Your task to perform on an android device: Go to CNN.com Image 0: 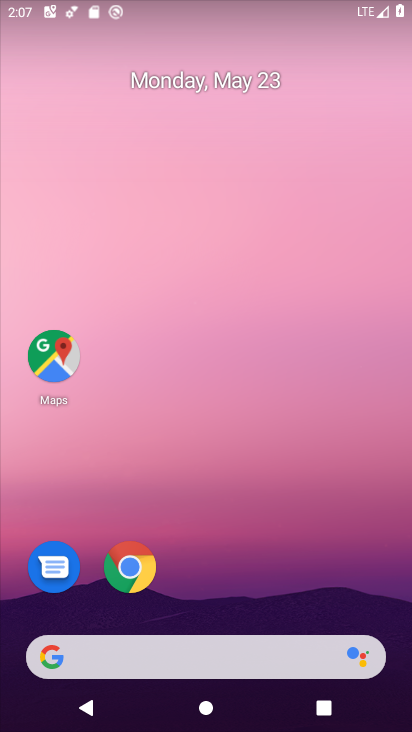
Step 0: drag from (233, 541) to (254, 194)
Your task to perform on an android device: Go to CNN.com Image 1: 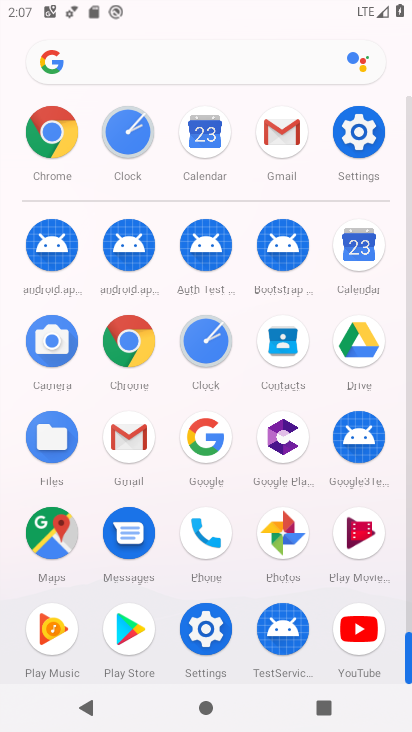
Step 1: click (363, 145)
Your task to perform on an android device: Go to CNN.com Image 2: 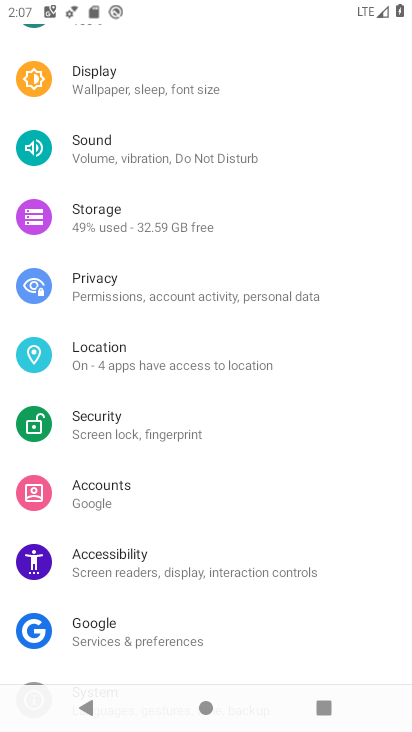
Step 2: press home button
Your task to perform on an android device: Go to CNN.com Image 3: 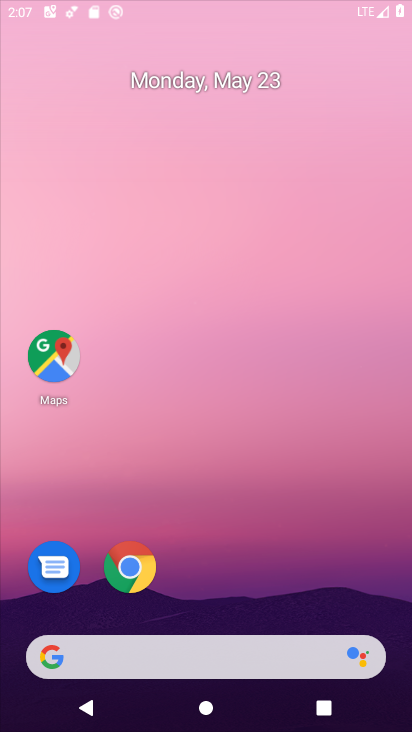
Step 3: drag from (277, 530) to (329, 181)
Your task to perform on an android device: Go to CNN.com Image 4: 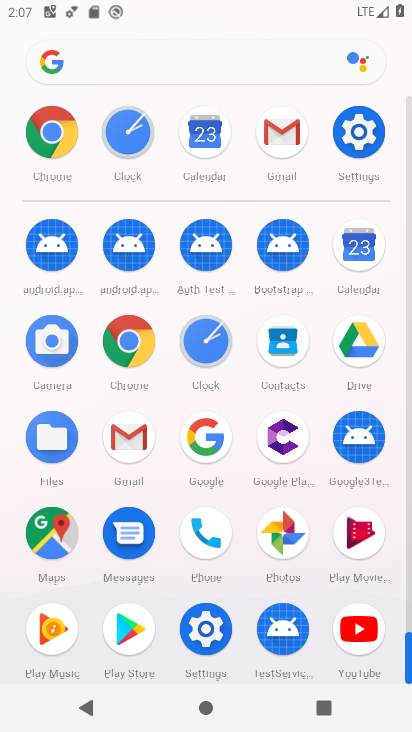
Step 4: click (151, 365)
Your task to perform on an android device: Go to CNN.com Image 5: 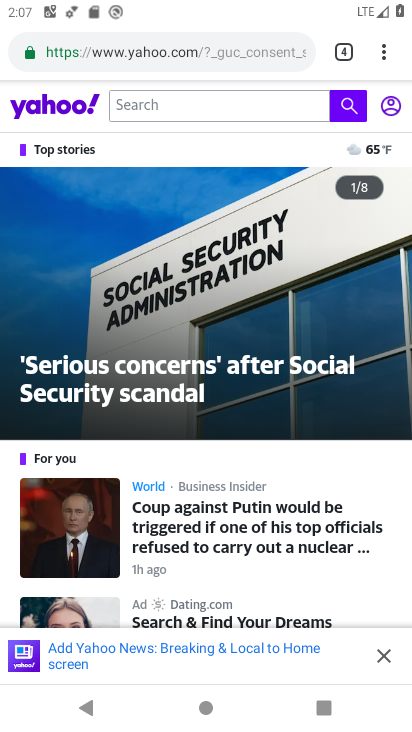
Step 5: click (349, 57)
Your task to perform on an android device: Go to CNN.com Image 6: 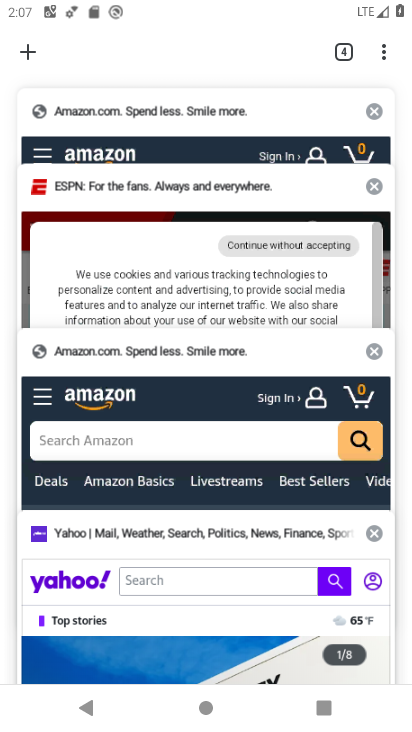
Step 6: click (31, 57)
Your task to perform on an android device: Go to CNN.com Image 7: 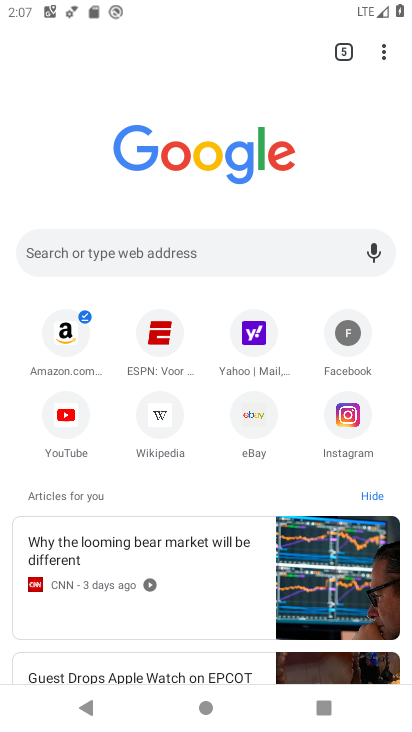
Step 7: click (178, 246)
Your task to perform on an android device: Go to CNN.com Image 8: 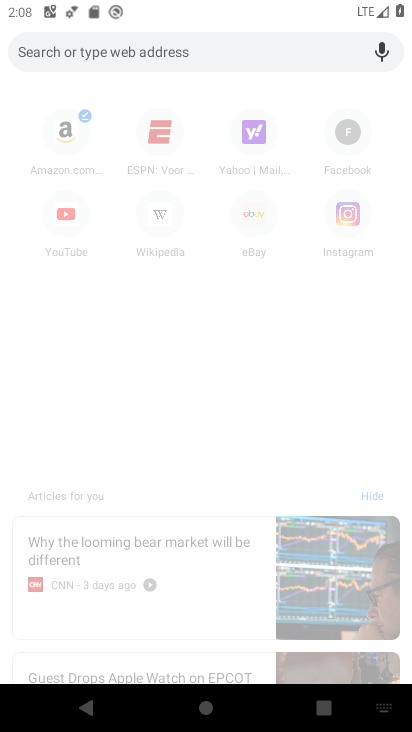
Step 8: type "cnn.com"
Your task to perform on an android device: Go to CNN.com Image 9: 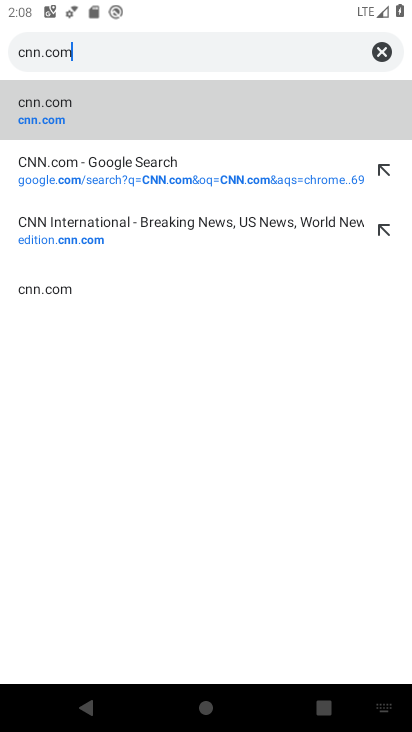
Step 9: type ""
Your task to perform on an android device: Go to CNN.com Image 10: 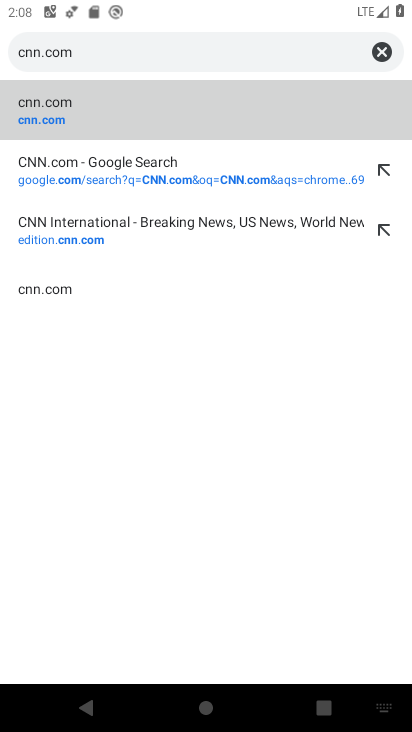
Step 10: click (149, 118)
Your task to perform on an android device: Go to CNN.com Image 11: 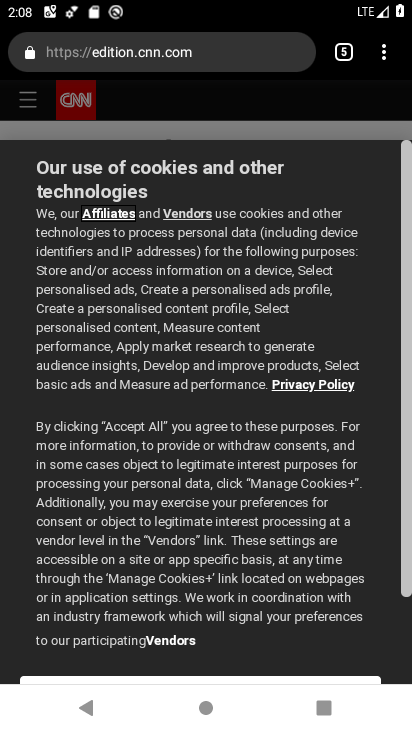
Step 11: task complete